Your task to perform on an android device: change the clock style Image 0: 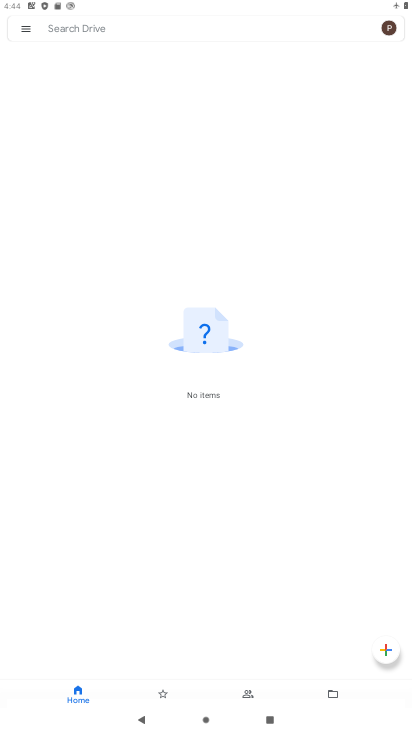
Step 0: press home button
Your task to perform on an android device: change the clock style Image 1: 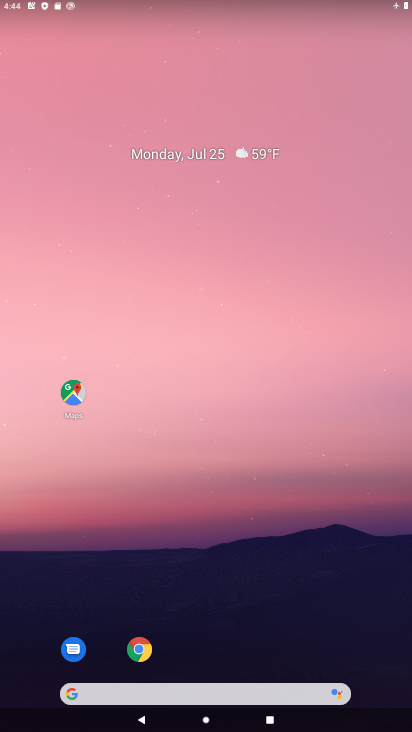
Step 1: drag from (242, 610) to (240, 48)
Your task to perform on an android device: change the clock style Image 2: 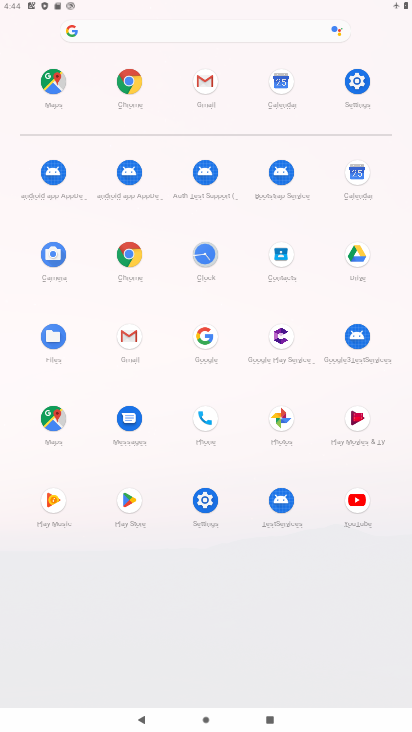
Step 2: click (201, 253)
Your task to perform on an android device: change the clock style Image 3: 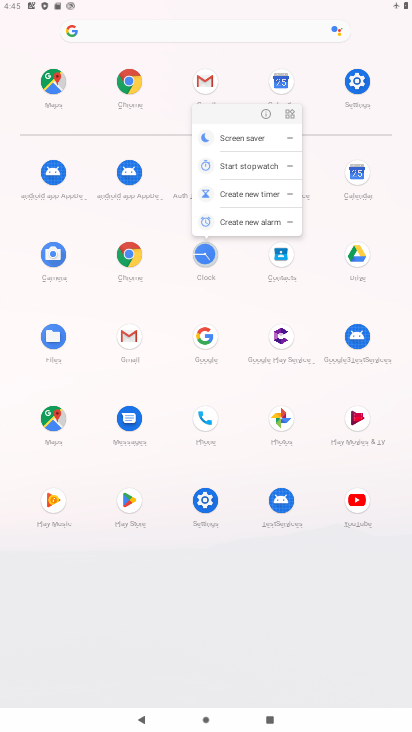
Step 3: click (203, 263)
Your task to perform on an android device: change the clock style Image 4: 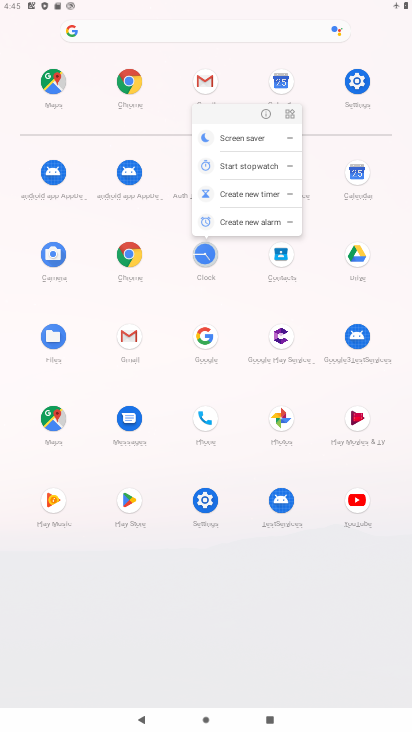
Step 4: click (200, 264)
Your task to perform on an android device: change the clock style Image 5: 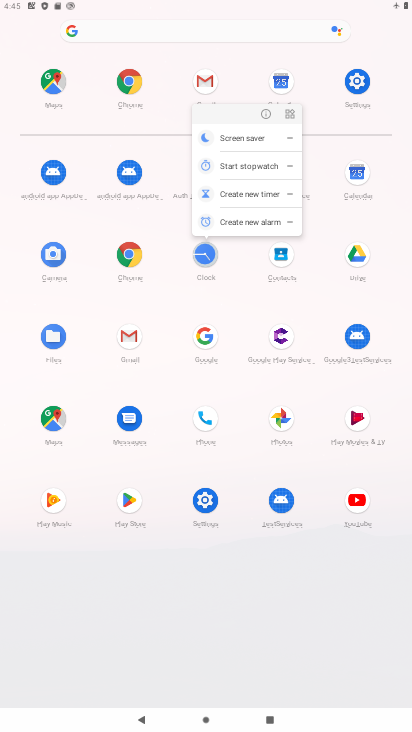
Step 5: click (199, 264)
Your task to perform on an android device: change the clock style Image 6: 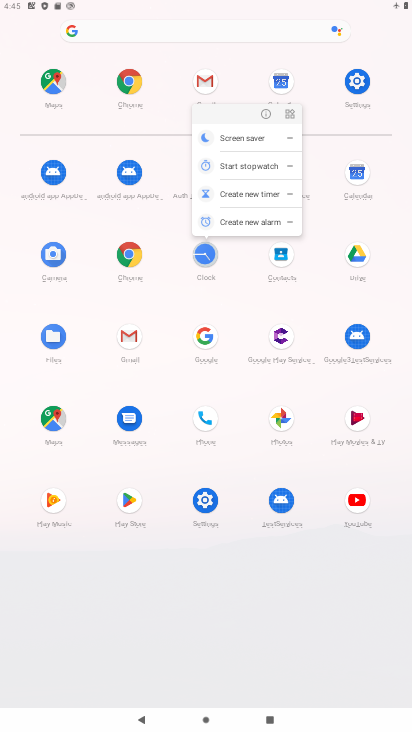
Step 6: click (206, 249)
Your task to perform on an android device: change the clock style Image 7: 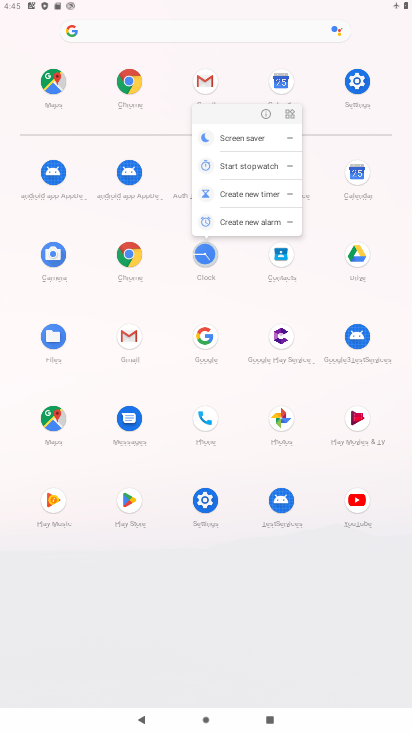
Step 7: click (199, 250)
Your task to perform on an android device: change the clock style Image 8: 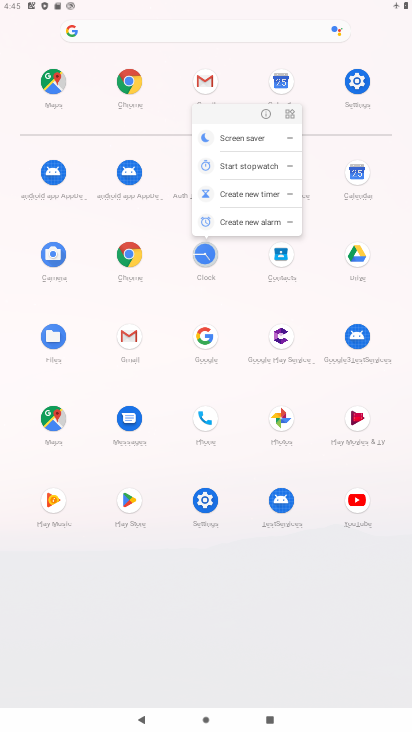
Step 8: click (192, 258)
Your task to perform on an android device: change the clock style Image 9: 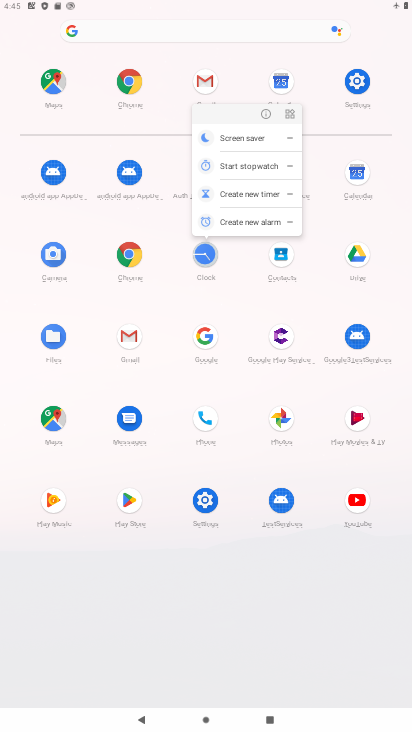
Step 9: click (220, 253)
Your task to perform on an android device: change the clock style Image 10: 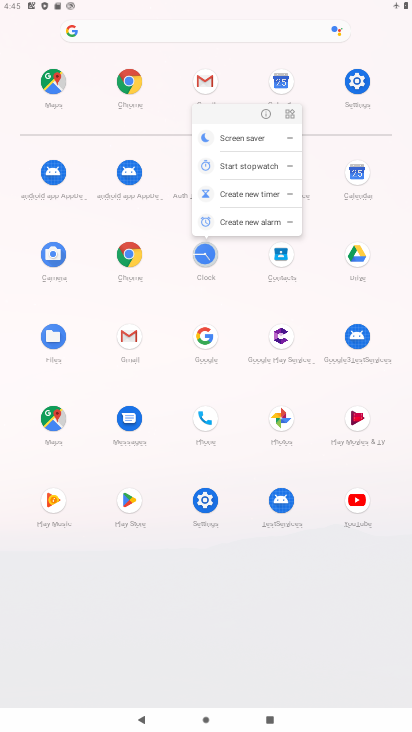
Step 10: click (209, 264)
Your task to perform on an android device: change the clock style Image 11: 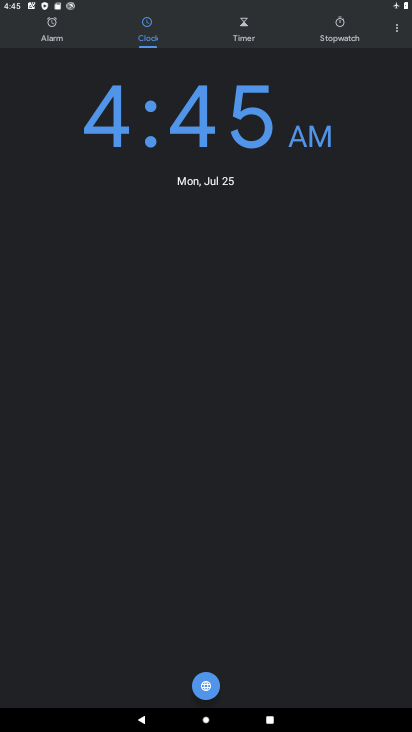
Step 11: click (399, 32)
Your task to perform on an android device: change the clock style Image 12: 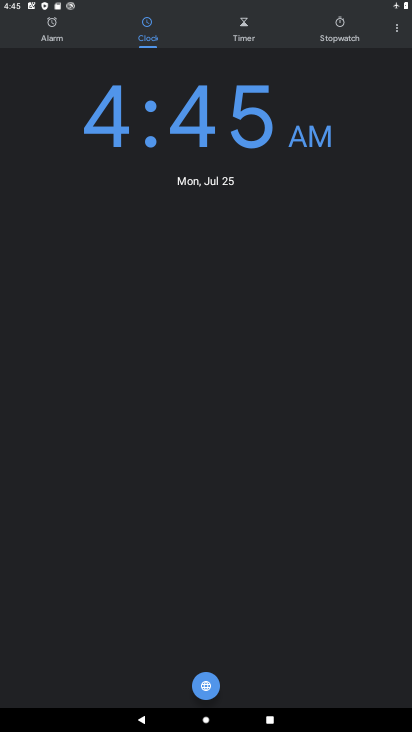
Step 12: click (395, 30)
Your task to perform on an android device: change the clock style Image 13: 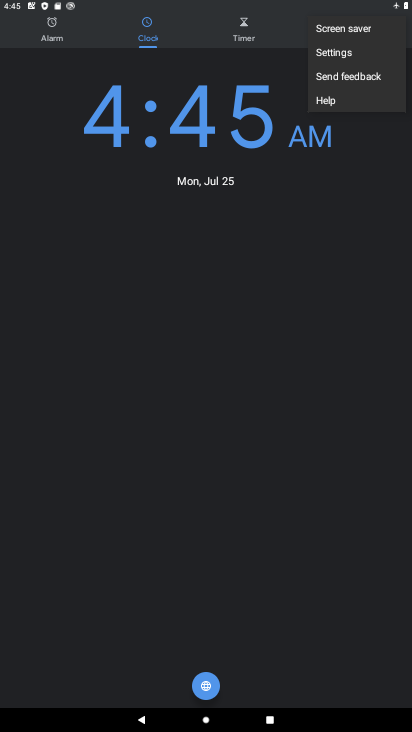
Step 13: click (330, 42)
Your task to perform on an android device: change the clock style Image 14: 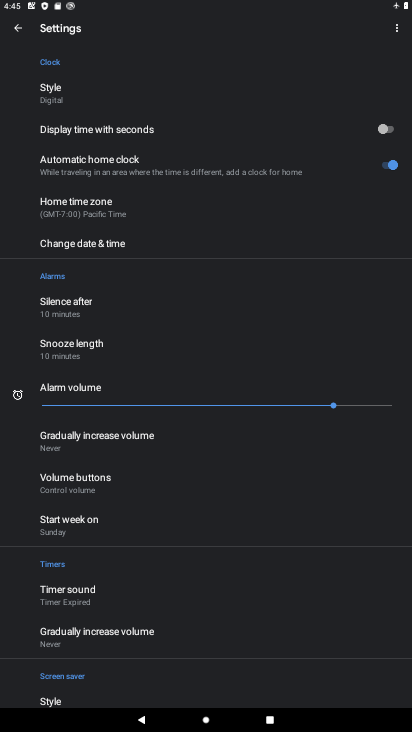
Step 14: click (57, 100)
Your task to perform on an android device: change the clock style Image 15: 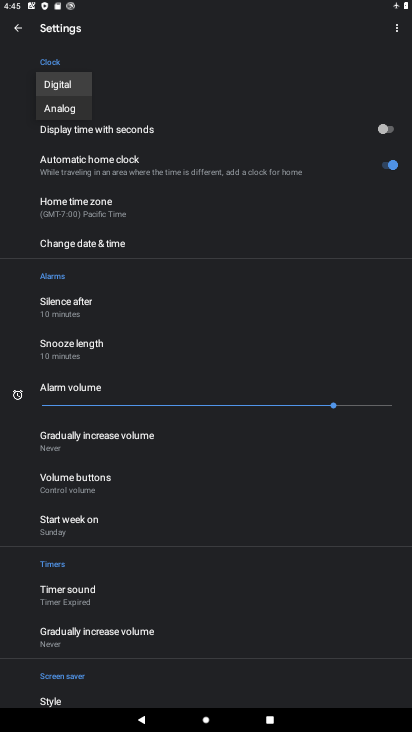
Step 15: click (61, 108)
Your task to perform on an android device: change the clock style Image 16: 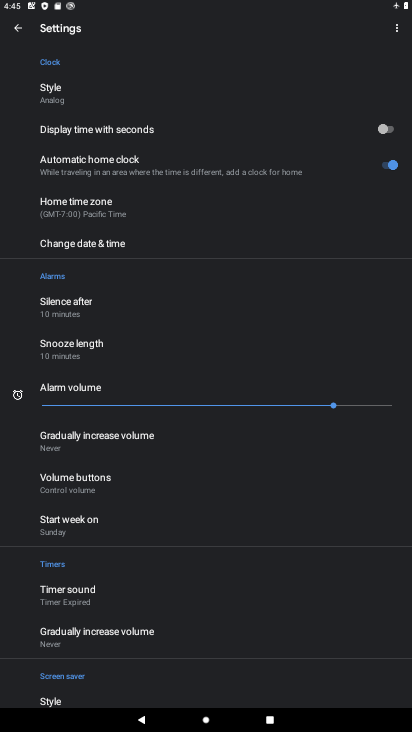
Step 16: task complete